Your task to perform on an android device: turn notification dots on Image 0: 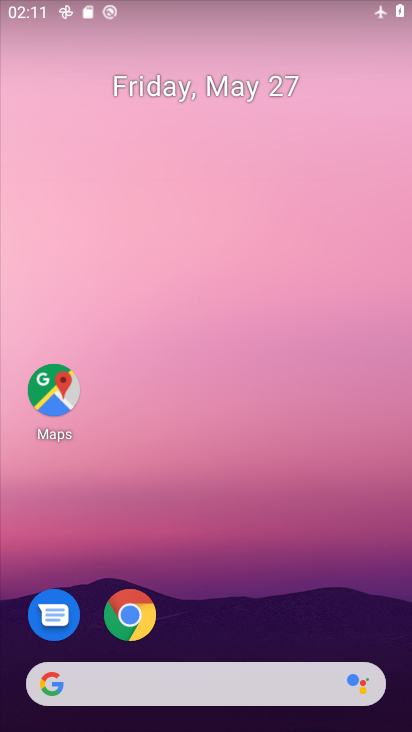
Step 0: drag from (350, 611) to (351, 231)
Your task to perform on an android device: turn notification dots on Image 1: 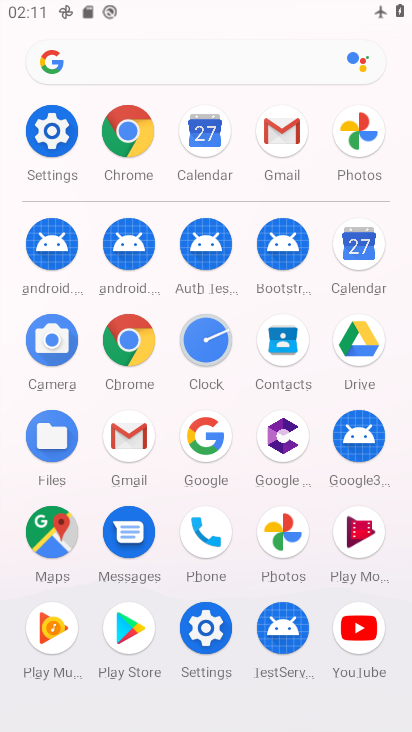
Step 1: click (194, 640)
Your task to perform on an android device: turn notification dots on Image 2: 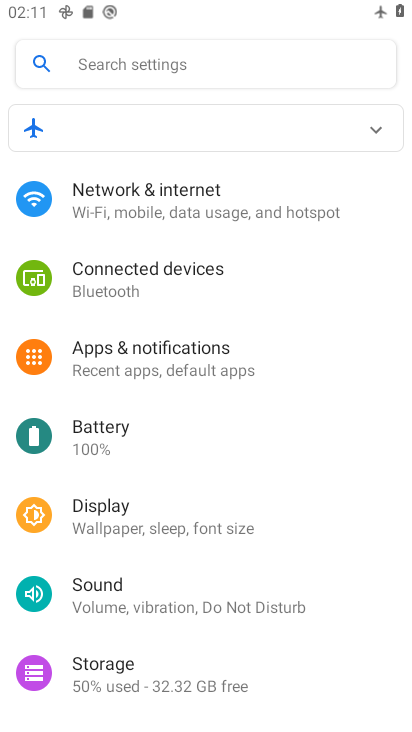
Step 2: drag from (337, 617) to (341, 507)
Your task to perform on an android device: turn notification dots on Image 3: 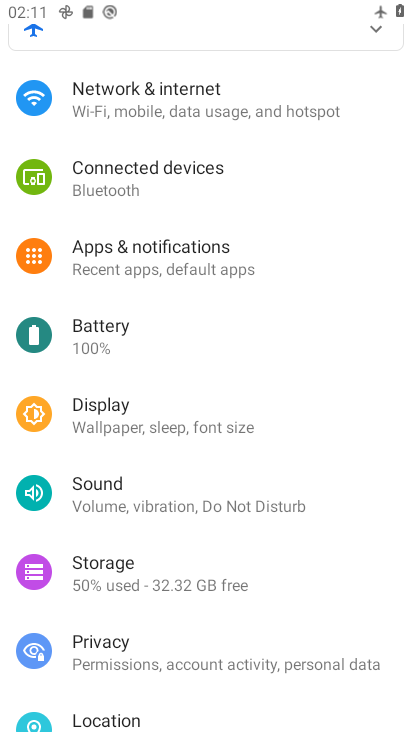
Step 3: drag from (357, 605) to (360, 507)
Your task to perform on an android device: turn notification dots on Image 4: 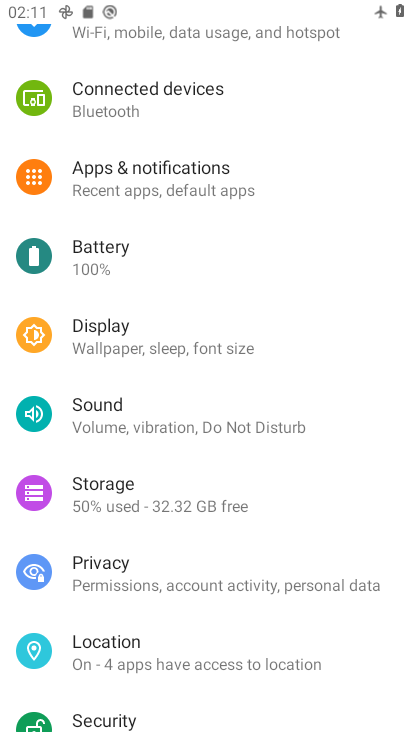
Step 4: drag from (365, 628) to (358, 500)
Your task to perform on an android device: turn notification dots on Image 5: 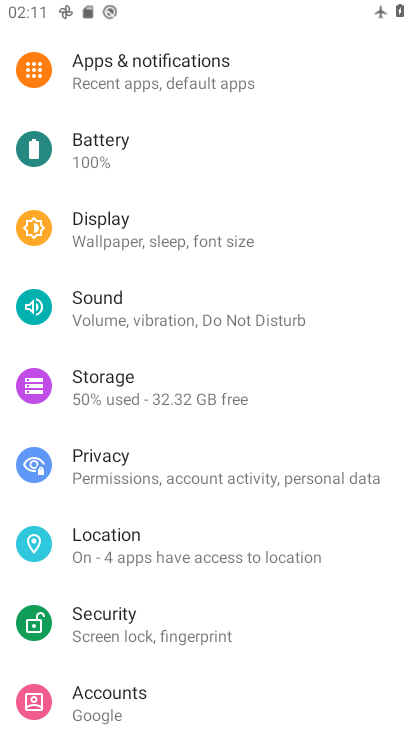
Step 5: drag from (352, 579) to (349, 528)
Your task to perform on an android device: turn notification dots on Image 6: 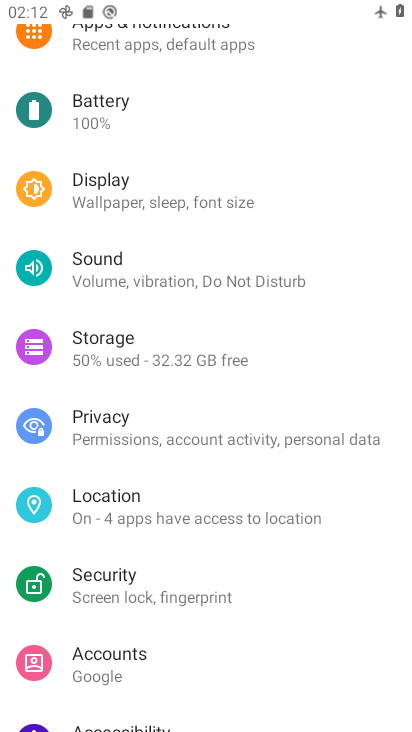
Step 6: drag from (342, 611) to (346, 523)
Your task to perform on an android device: turn notification dots on Image 7: 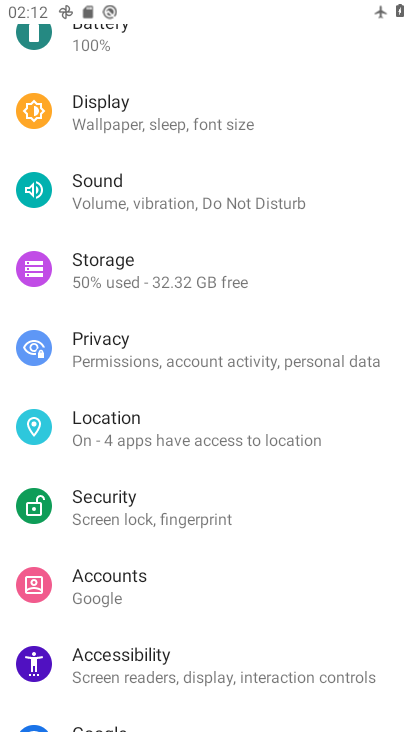
Step 7: drag from (341, 611) to (344, 529)
Your task to perform on an android device: turn notification dots on Image 8: 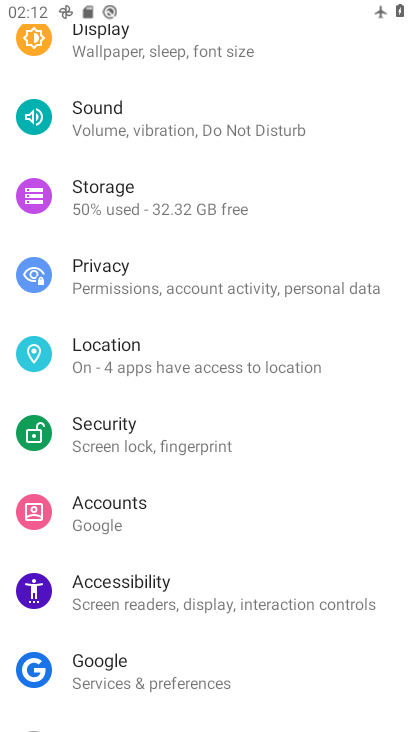
Step 8: drag from (341, 631) to (341, 543)
Your task to perform on an android device: turn notification dots on Image 9: 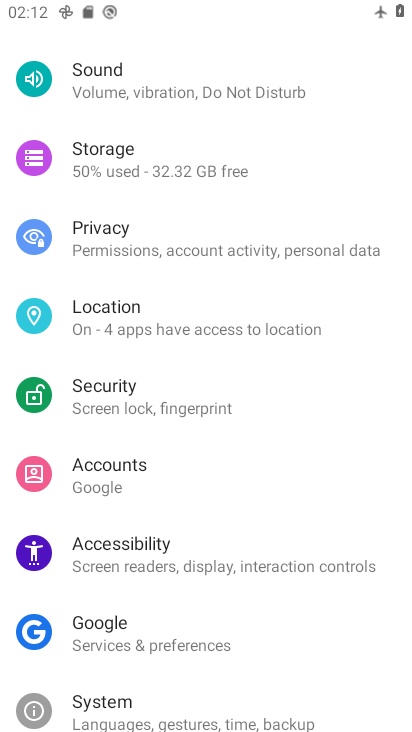
Step 9: drag from (333, 644) to (332, 540)
Your task to perform on an android device: turn notification dots on Image 10: 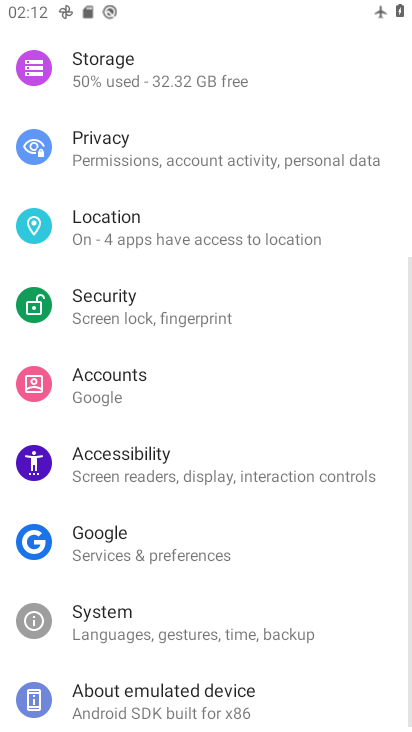
Step 10: drag from (344, 662) to (347, 553)
Your task to perform on an android device: turn notification dots on Image 11: 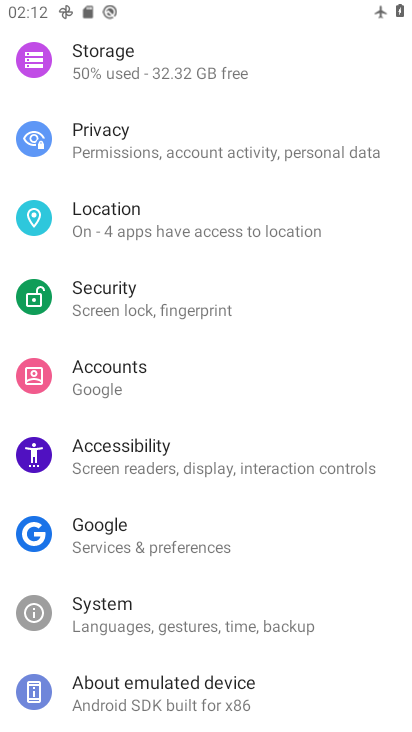
Step 11: drag from (345, 505) to (346, 596)
Your task to perform on an android device: turn notification dots on Image 12: 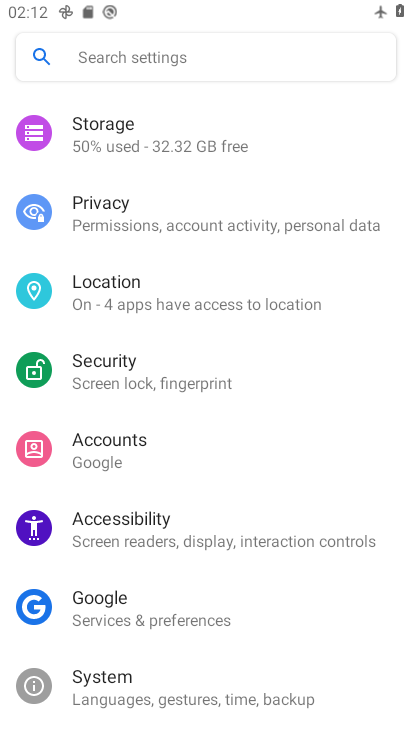
Step 12: drag from (347, 341) to (347, 466)
Your task to perform on an android device: turn notification dots on Image 13: 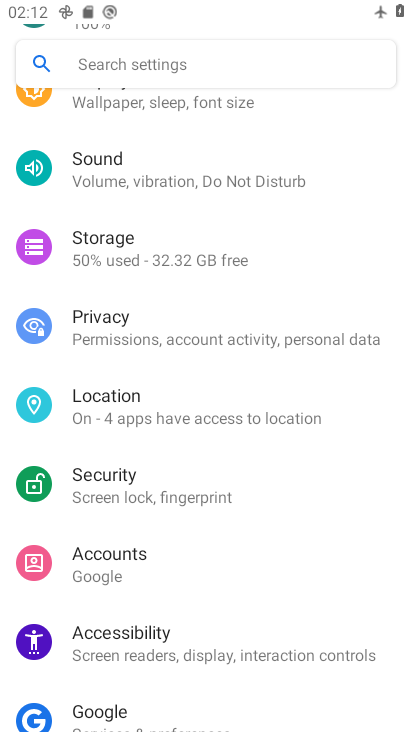
Step 13: drag from (356, 378) to (356, 468)
Your task to perform on an android device: turn notification dots on Image 14: 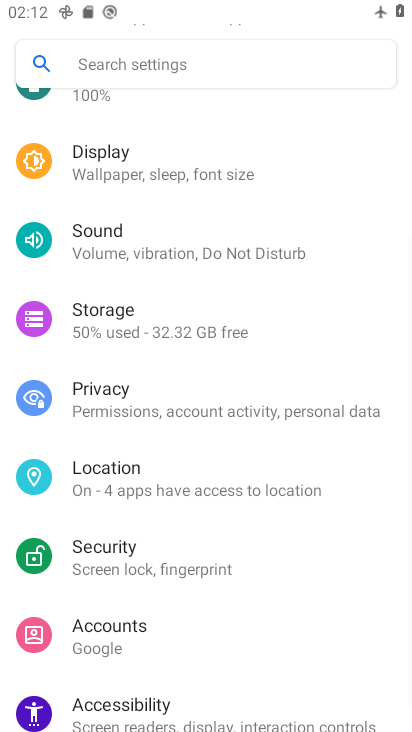
Step 14: drag from (341, 347) to (341, 441)
Your task to perform on an android device: turn notification dots on Image 15: 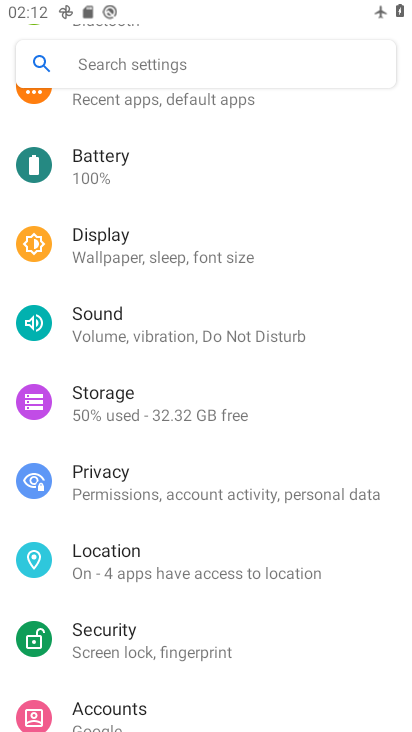
Step 15: drag from (337, 351) to (337, 452)
Your task to perform on an android device: turn notification dots on Image 16: 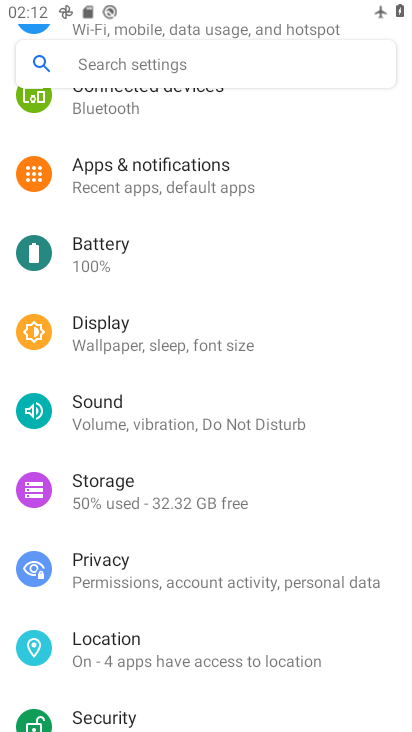
Step 16: drag from (330, 350) to (340, 471)
Your task to perform on an android device: turn notification dots on Image 17: 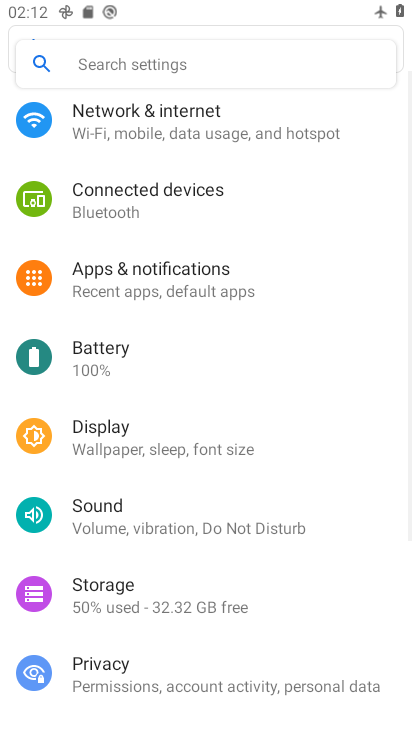
Step 17: drag from (340, 338) to (341, 465)
Your task to perform on an android device: turn notification dots on Image 18: 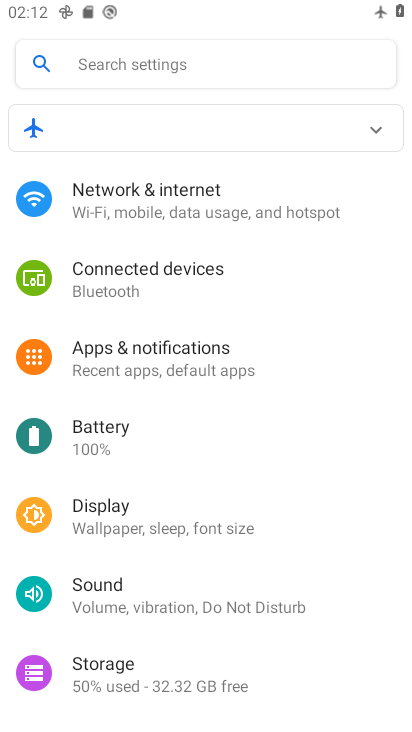
Step 18: drag from (317, 311) to (316, 446)
Your task to perform on an android device: turn notification dots on Image 19: 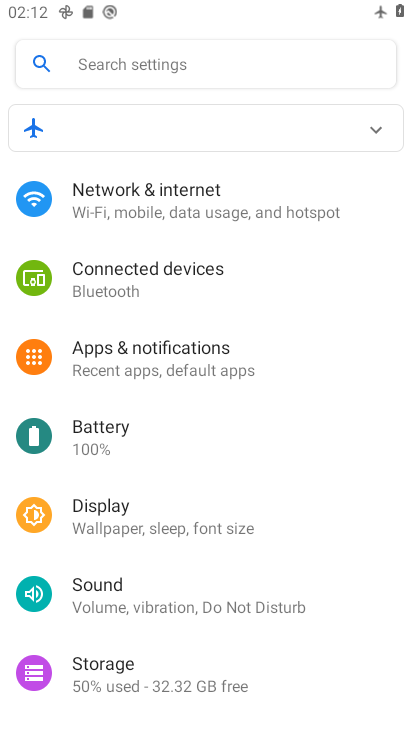
Step 19: click (192, 365)
Your task to perform on an android device: turn notification dots on Image 20: 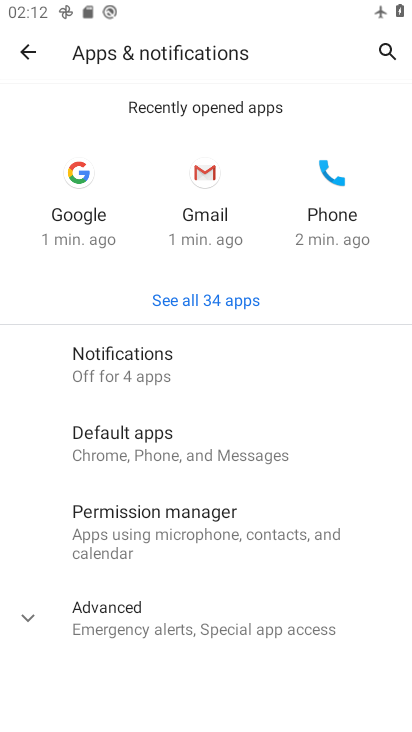
Step 20: click (144, 374)
Your task to perform on an android device: turn notification dots on Image 21: 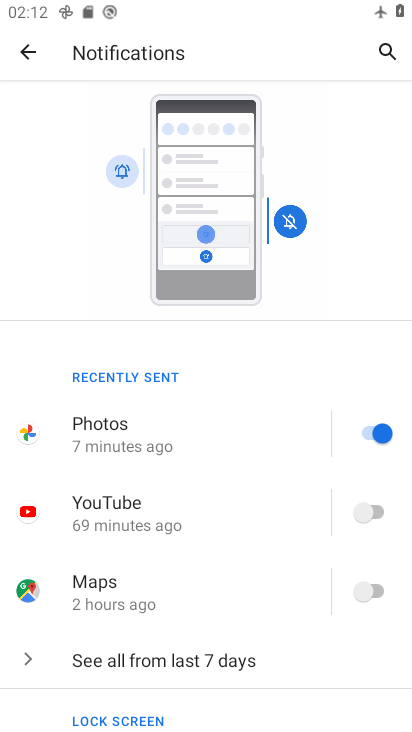
Step 21: drag from (208, 554) to (235, 352)
Your task to perform on an android device: turn notification dots on Image 22: 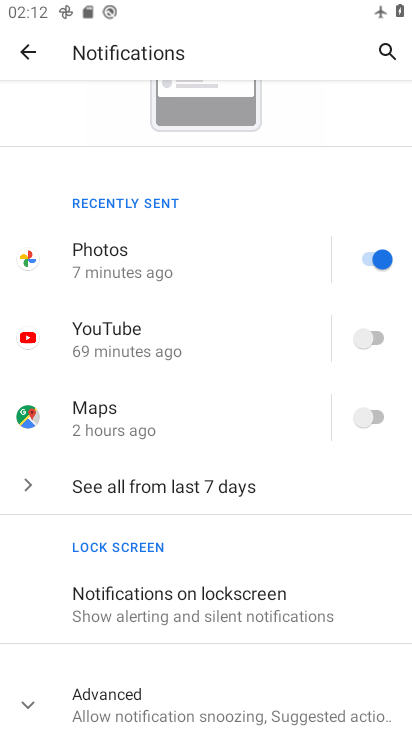
Step 22: drag from (243, 527) to (257, 385)
Your task to perform on an android device: turn notification dots on Image 23: 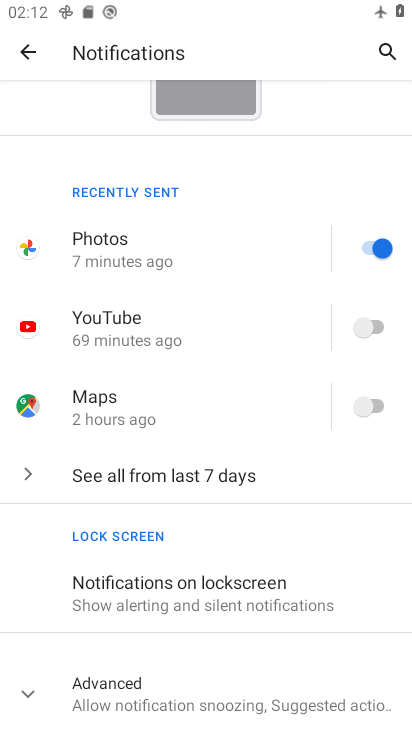
Step 23: click (286, 723)
Your task to perform on an android device: turn notification dots on Image 24: 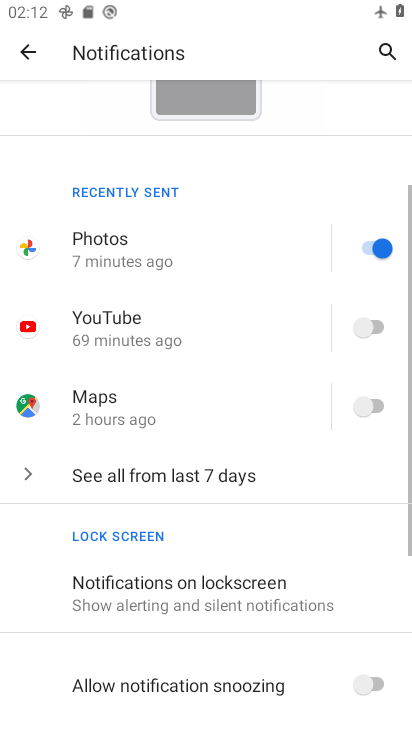
Step 24: drag from (303, 647) to (304, 550)
Your task to perform on an android device: turn notification dots on Image 25: 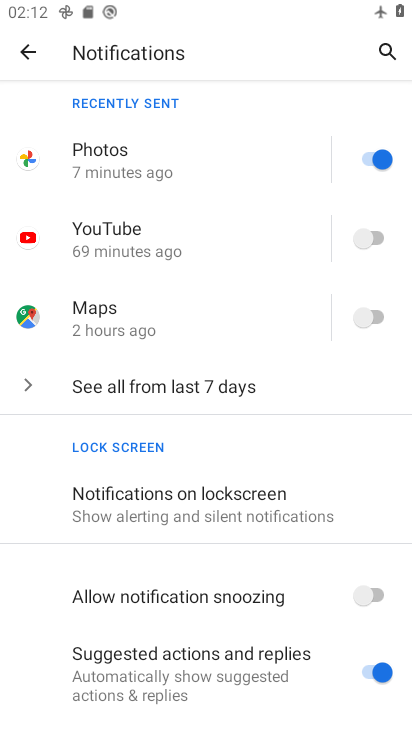
Step 25: drag from (308, 662) to (311, 503)
Your task to perform on an android device: turn notification dots on Image 26: 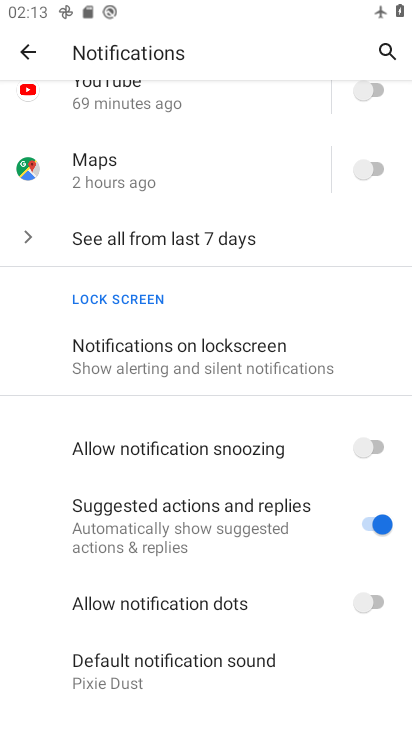
Step 26: click (377, 602)
Your task to perform on an android device: turn notification dots on Image 27: 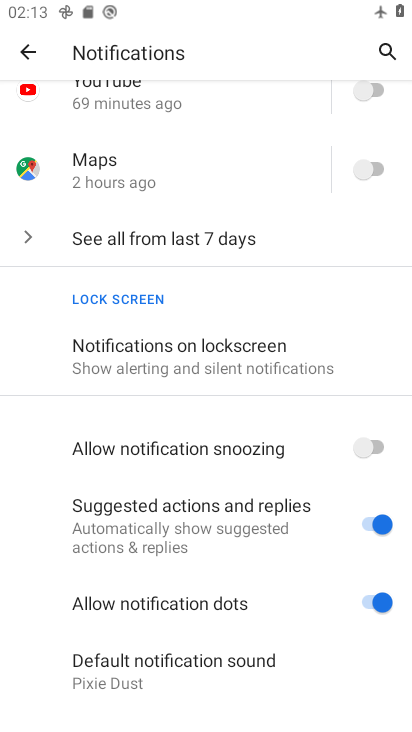
Step 27: task complete